Your task to perform on an android device: Go to internet settings Image 0: 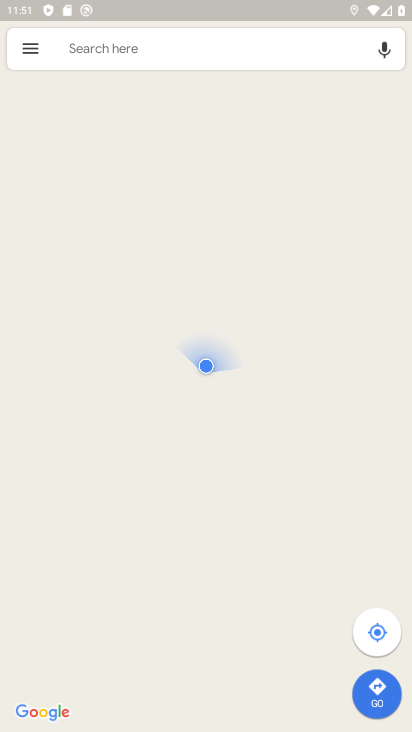
Step 0: press home button
Your task to perform on an android device: Go to internet settings Image 1: 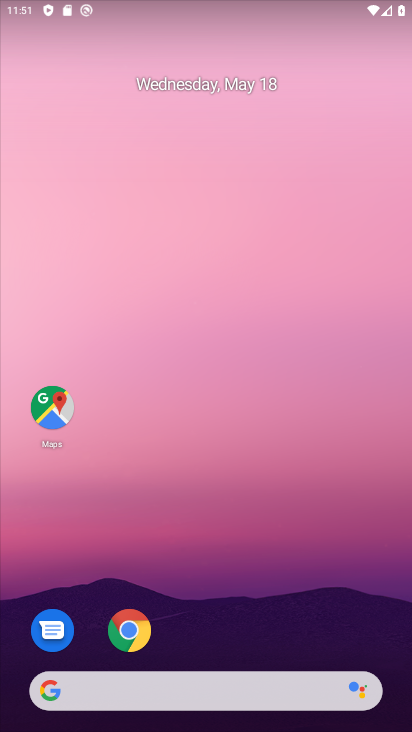
Step 1: drag from (172, 653) to (171, 39)
Your task to perform on an android device: Go to internet settings Image 2: 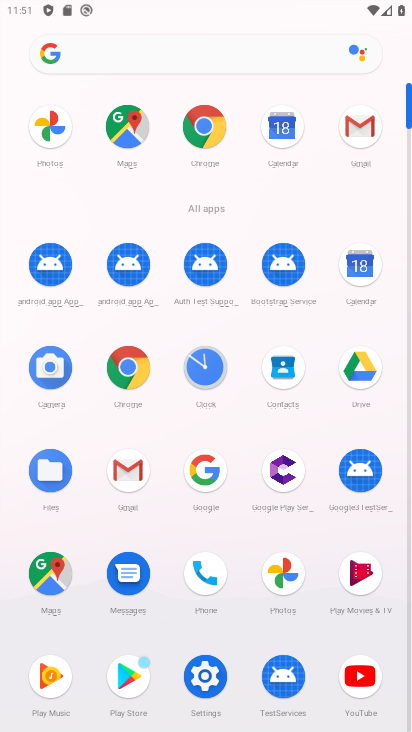
Step 2: click (209, 681)
Your task to perform on an android device: Go to internet settings Image 3: 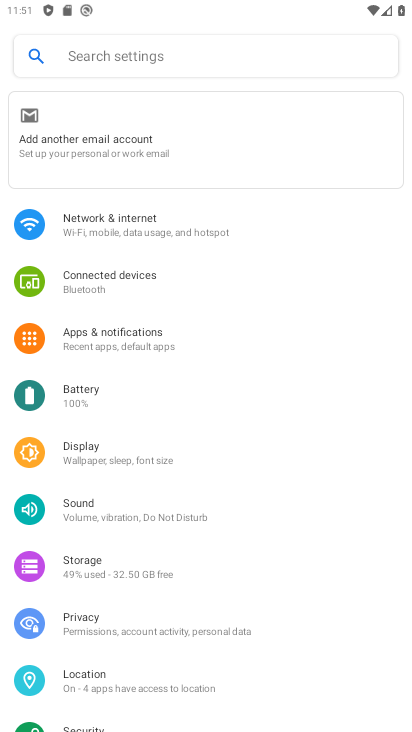
Step 3: click (80, 238)
Your task to perform on an android device: Go to internet settings Image 4: 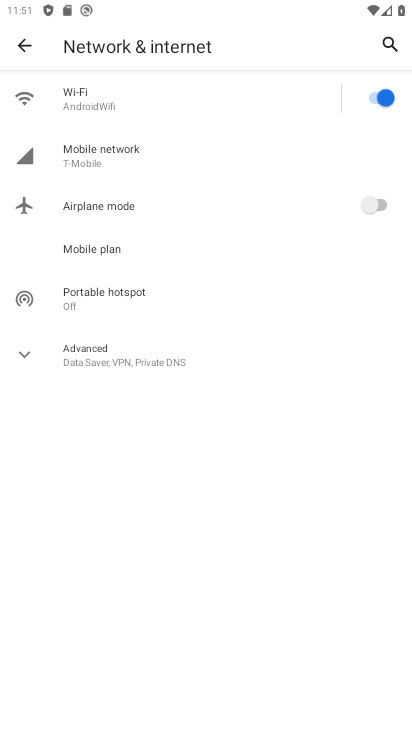
Step 4: task complete